Your task to perform on an android device: Look up the best rated book on Goodreads Image 0: 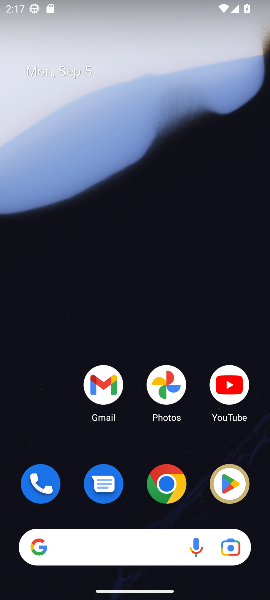
Step 0: click (169, 487)
Your task to perform on an android device: Look up the best rated book on Goodreads Image 1: 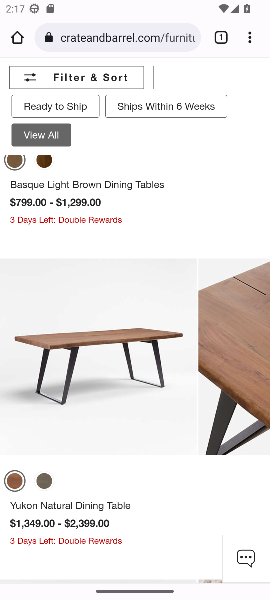
Step 1: click (162, 40)
Your task to perform on an android device: Look up the best rated book on Goodreads Image 2: 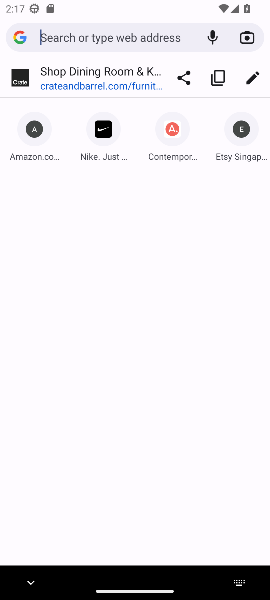
Step 2: type "Goodreads"
Your task to perform on an android device: Look up the best rated book on Goodreads Image 3: 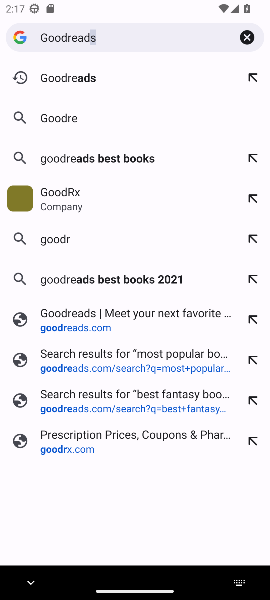
Step 3: press enter
Your task to perform on an android device: Look up the best rated book on Goodreads Image 4: 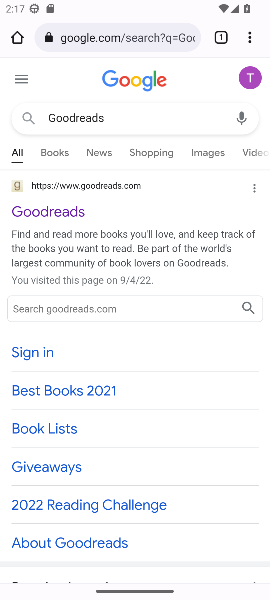
Step 4: click (30, 211)
Your task to perform on an android device: Look up the best rated book on Goodreads Image 5: 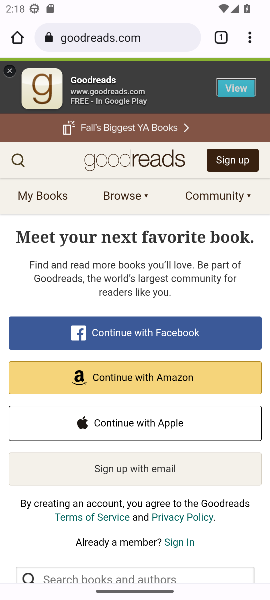
Step 5: click (17, 157)
Your task to perform on an android device: Look up the best rated book on Goodreads Image 6: 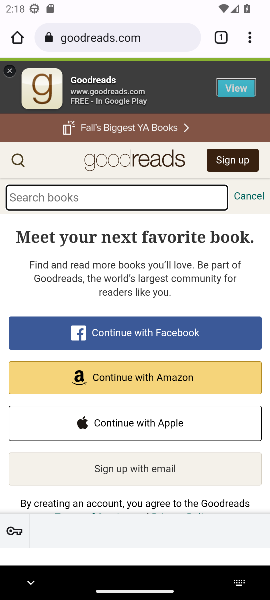
Step 6: type "best rated book "
Your task to perform on an android device: Look up the best rated book on Goodreads Image 7: 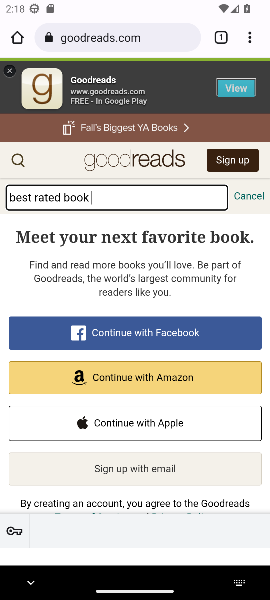
Step 7: press enter
Your task to perform on an android device: Look up the best rated book on Goodreads Image 8: 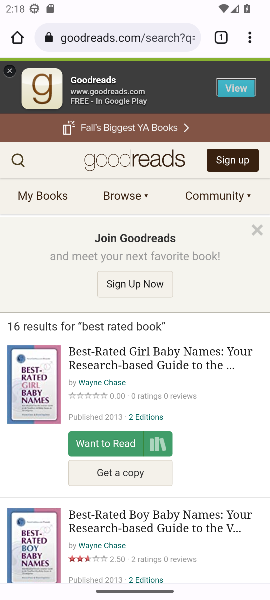
Step 8: task complete